Your task to perform on an android device: set an alarm Image 0: 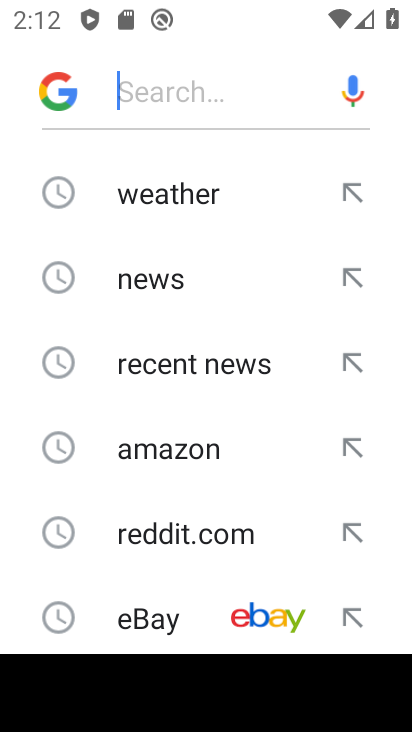
Step 0: press home button
Your task to perform on an android device: set an alarm Image 1: 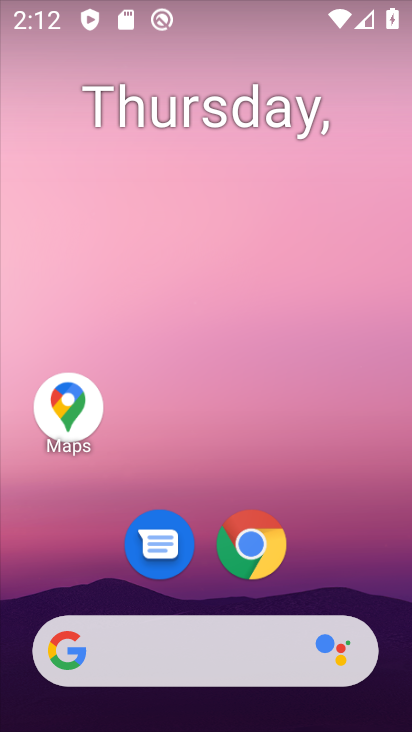
Step 1: drag from (322, 552) to (219, 190)
Your task to perform on an android device: set an alarm Image 2: 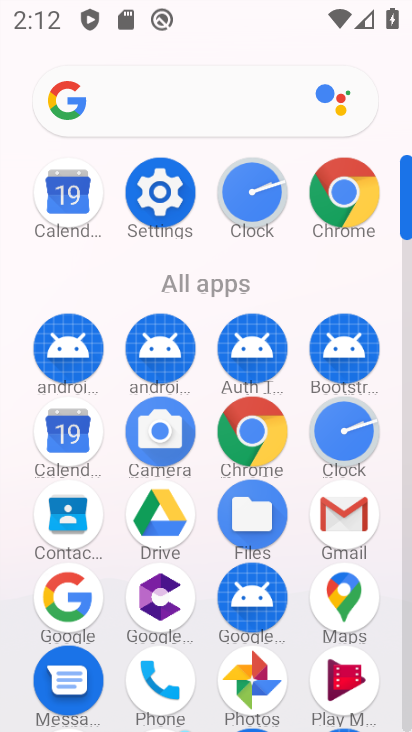
Step 2: click (241, 211)
Your task to perform on an android device: set an alarm Image 3: 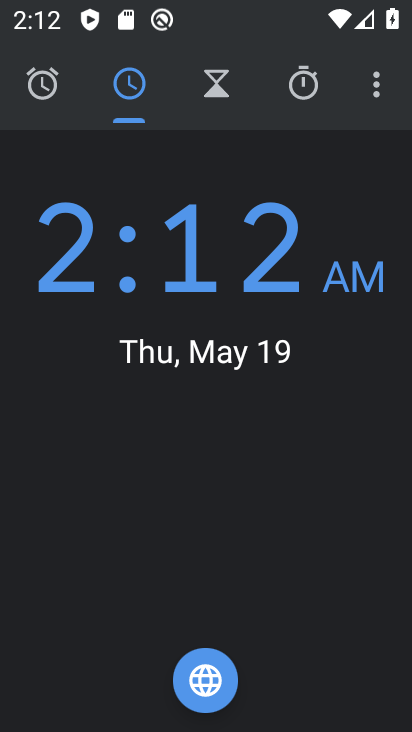
Step 3: click (50, 102)
Your task to perform on an android device: set an alarm Image 4: 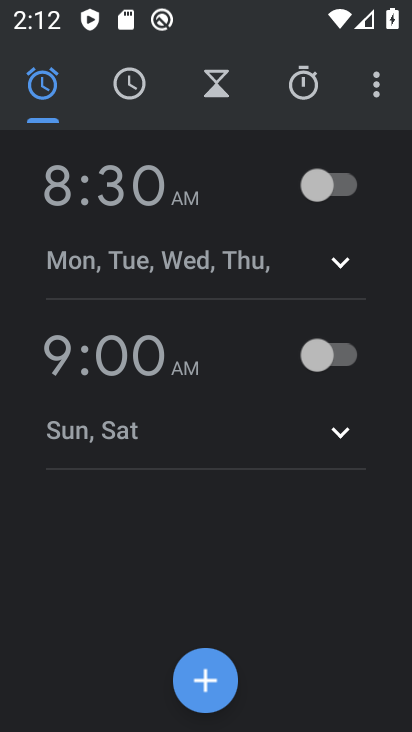
Step 4: click (333, 198)
Your task to perform on an android device: set an alarm Image 5: 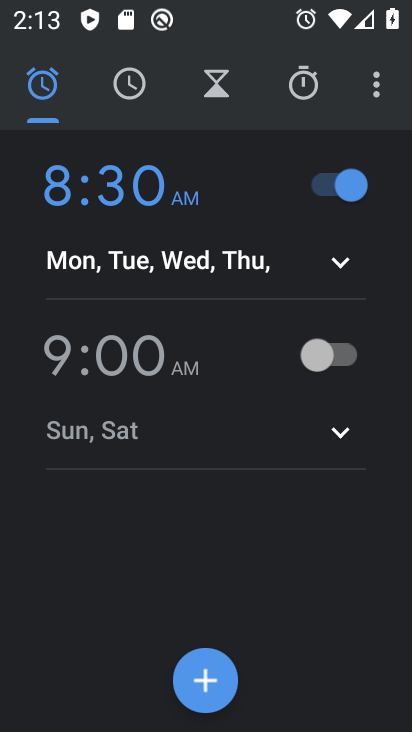
Step 5: task complete